Your task to perform on an android device: Clear all items from cart on costco. Add "rayovac triple a" to the cart on costco Image 0: 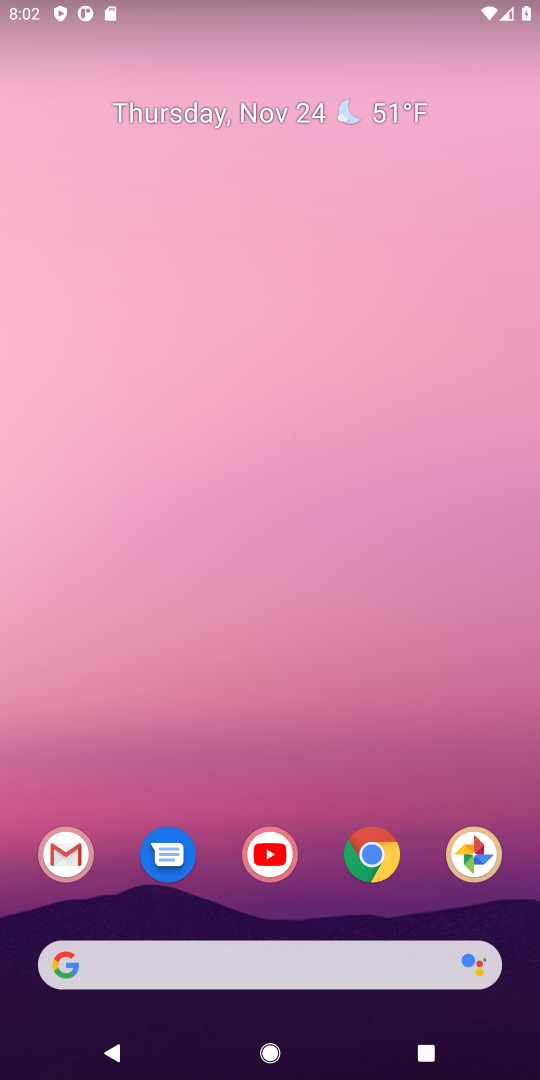
Step 0: click (374, 849)
Your task to perform on an android device: Clear all items from cart on costco. Add "rayovac triple a" to the cart on costco Image 1: 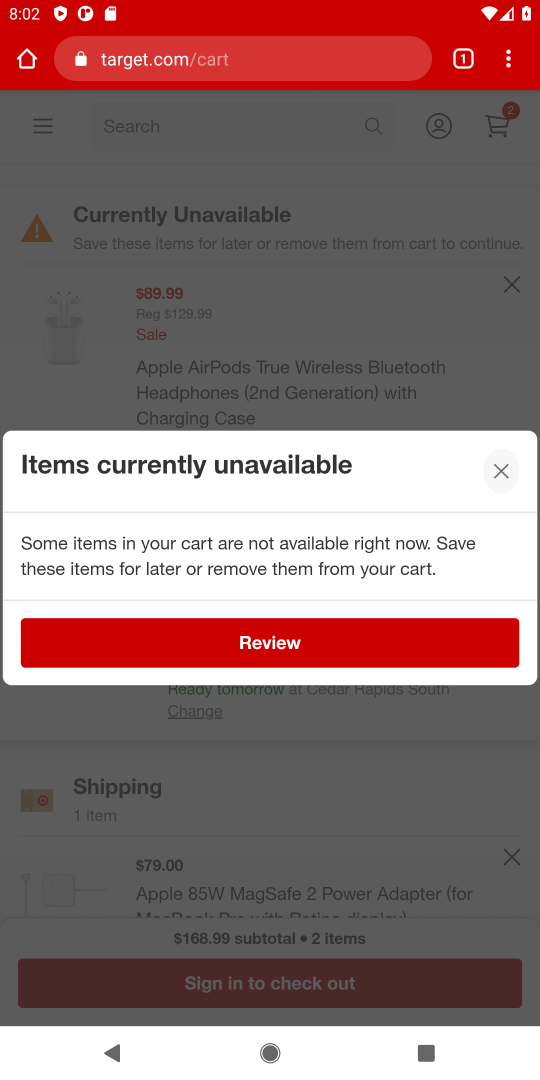
Step 1: click (181, 57)
Your task to perform on an android device: Clear all items from cart on costco. Add "rayovac triple a" to the cart on costco Image 2: 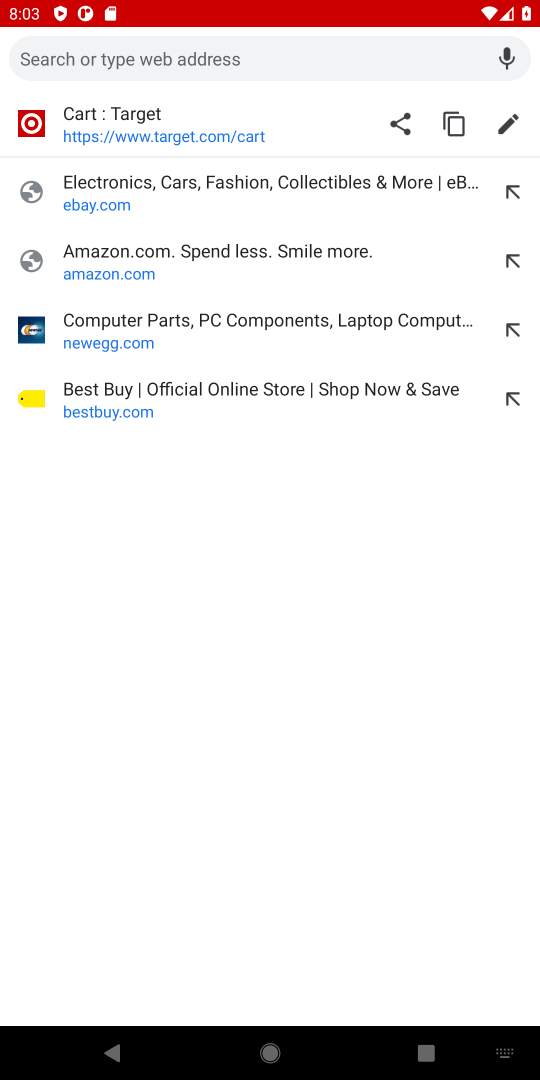
Step 2: type "costco.com"
Your task to perform on an android device: Clear all items from cart on costco. Add "rayovac triple a" to the cart on costco Image 3: 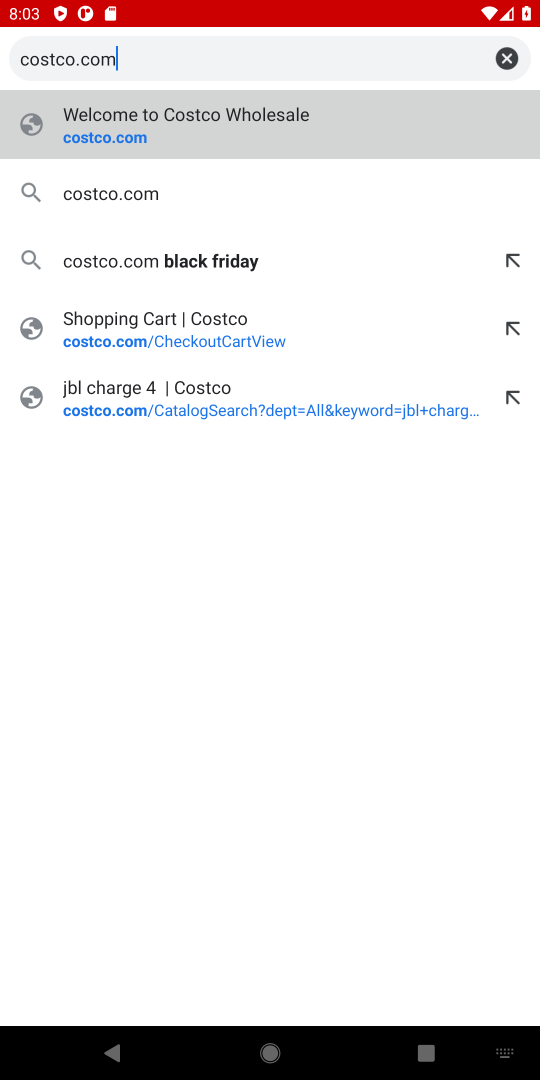
Step 3: click (101, 139)
Your task to perform on an android device: Clear all items from cart on costco. Add "rayovac triple a" to the cart on costco Image 4: 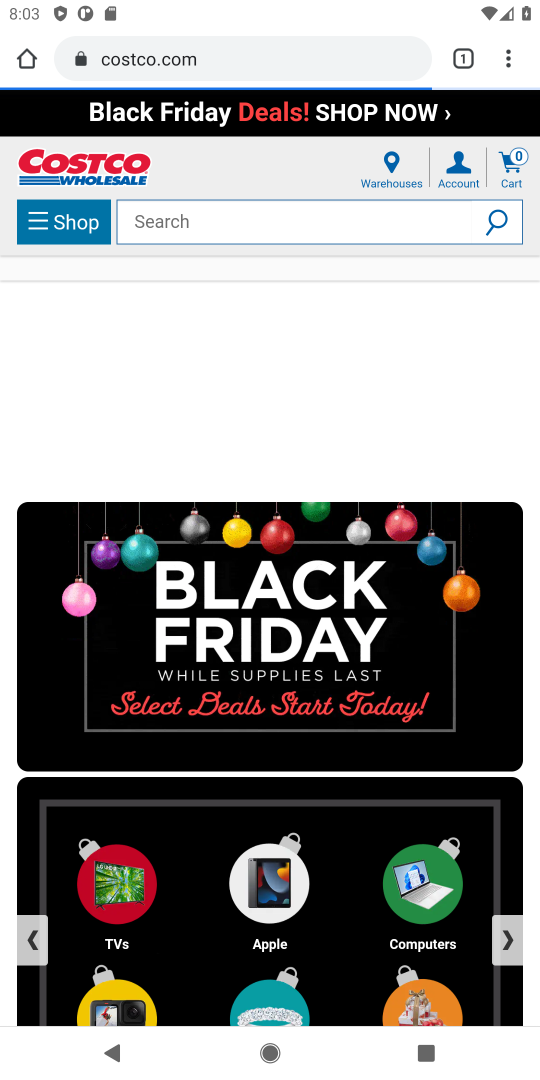
Step 4: click (510, 165)
Your task to perform on an android device: Clear all items from cart on costco. Add "rayovac triple a" to the cart on costco Image 5: 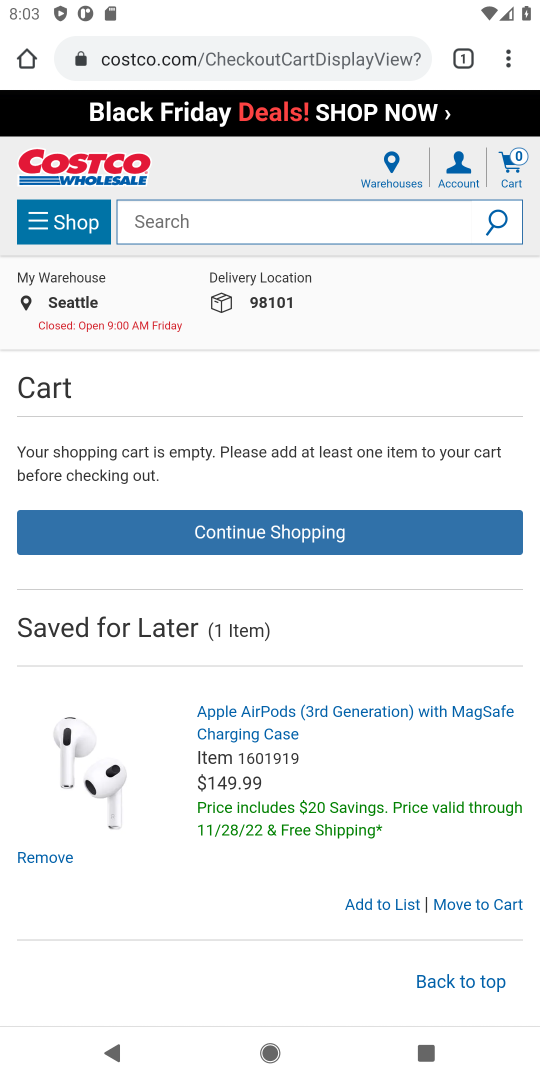
Step 5: click (204, 218)
Your task to perform on an android device: Clear all items from cart on costco. Add "rayovac triple a" to the cart on costco Image 6: 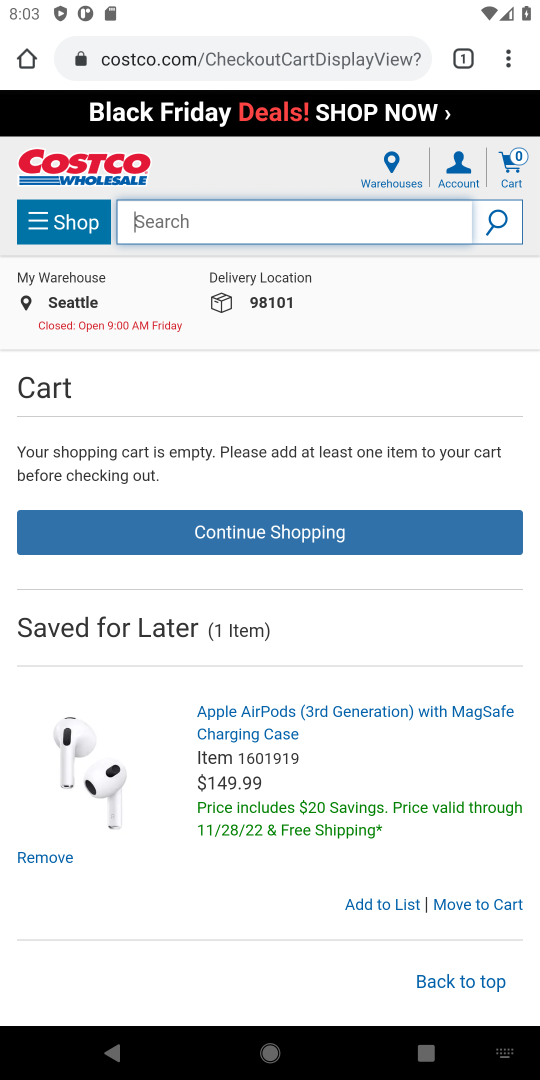
Step 6: type "rayovac triple a"
Your task to perform on an android device: Clear all items from cart on costco. Add "rayovac triple a" to the cart on costco Image 7: 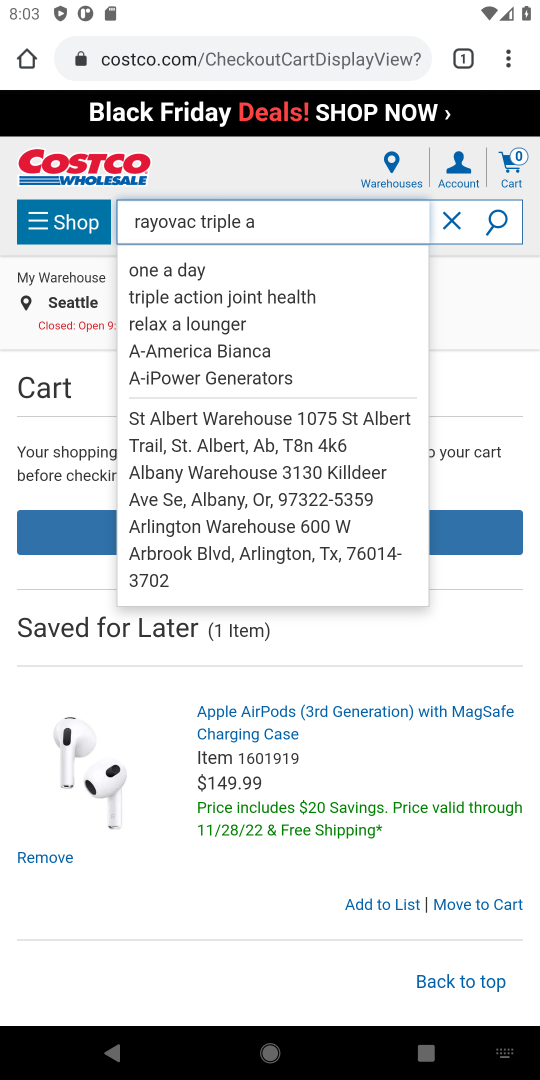
Step 7: click (497, 222)
Your task to perform on an android device: Clear all items from cart on costco. Add "rayovac triple a" to the cart on costco Image 8: 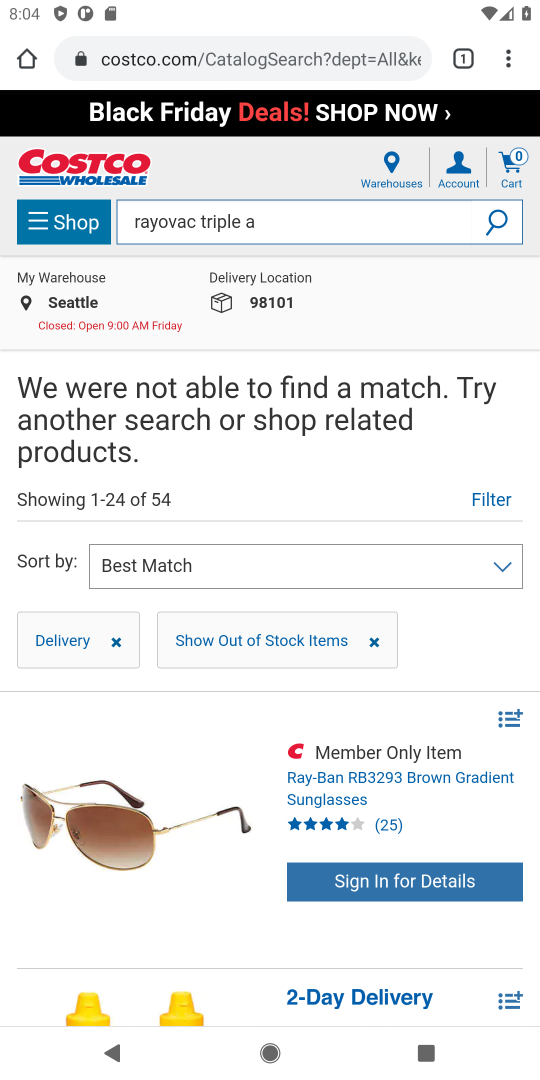
Step 8: task complete